Your task to perform on an android device: turn on airplane mode Image 0: 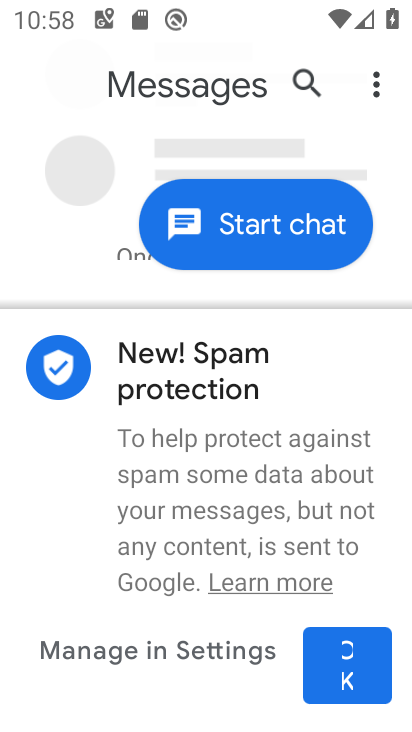
Step 0: press home button
Your task to perform on an android device: turn on airplane mode Image 1: 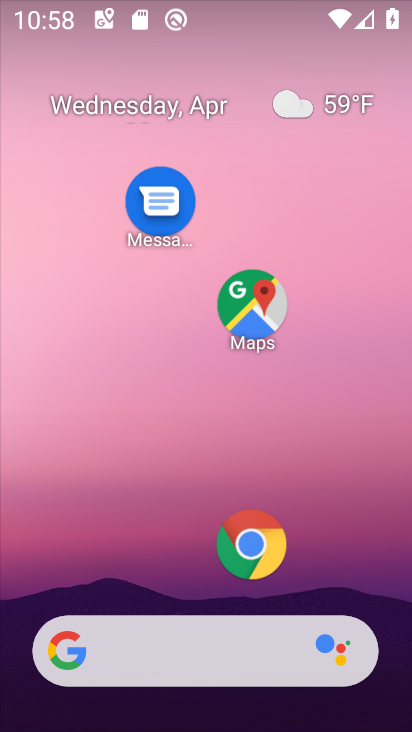
Step 1: drag from (189, 568) to (216, 164)
Your task to perform on an android device: turn on airplane mode Image 2: 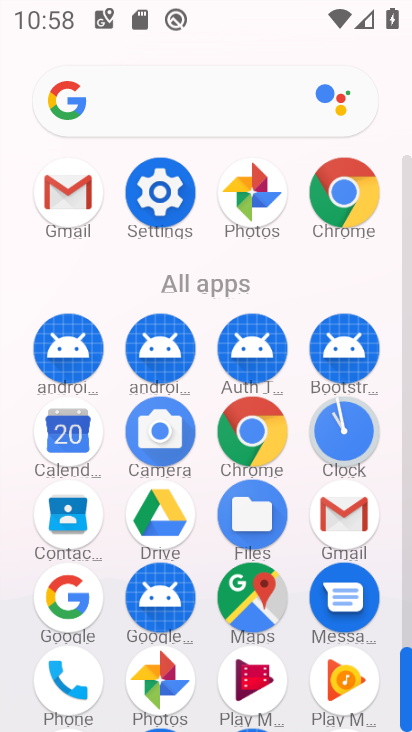
Step 2: click (166, 184)
Your task to perform on an android device: turn on airplane mode Image 3: 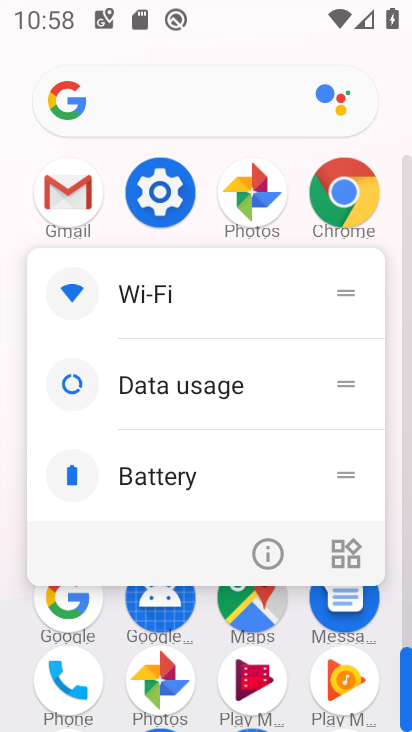
Step 3: click (165, 197)
Your task to perform on an android device: turn on airplane mode Image 4: 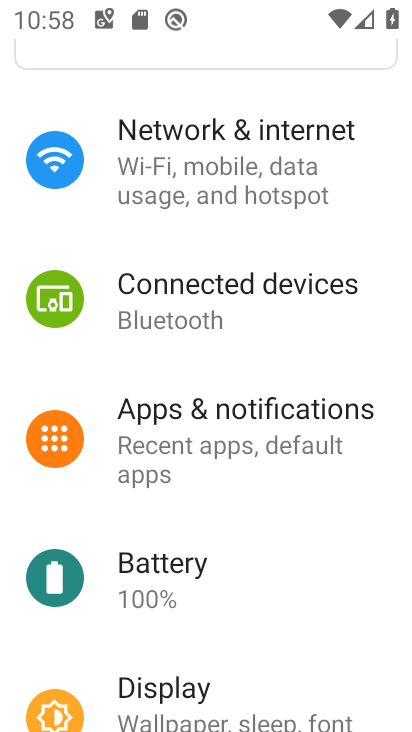
Step 4: click (165, 197)
Your task to perform on an android device: turn on airplane mode Image 5: 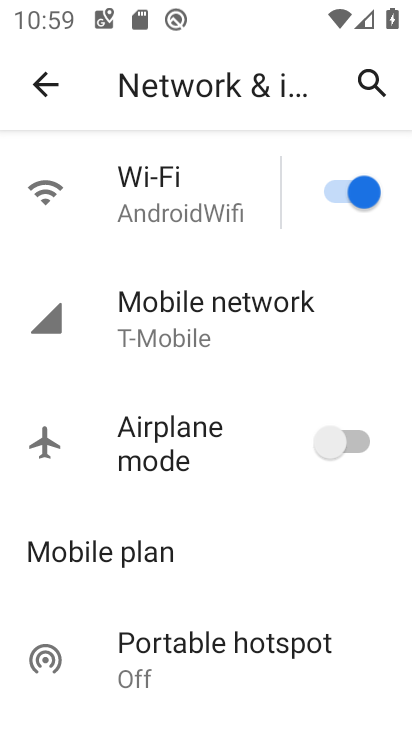
Step 5: click (361, 445)
Your task to perform on an android device: turn on airplane mode Image 6: 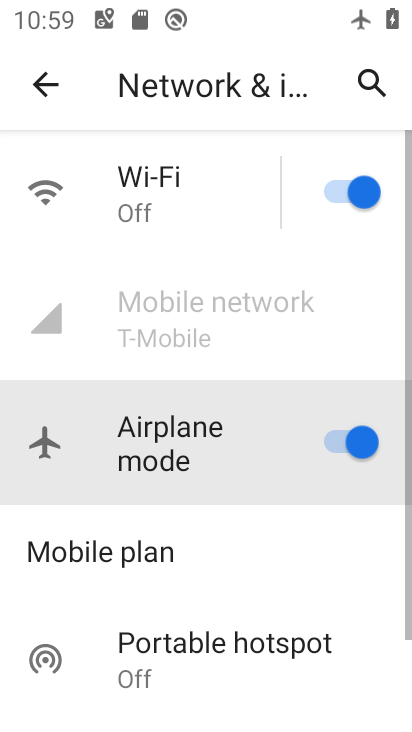
Step 6: task complete